Your task to perform on an android device: Open settings Image 0: 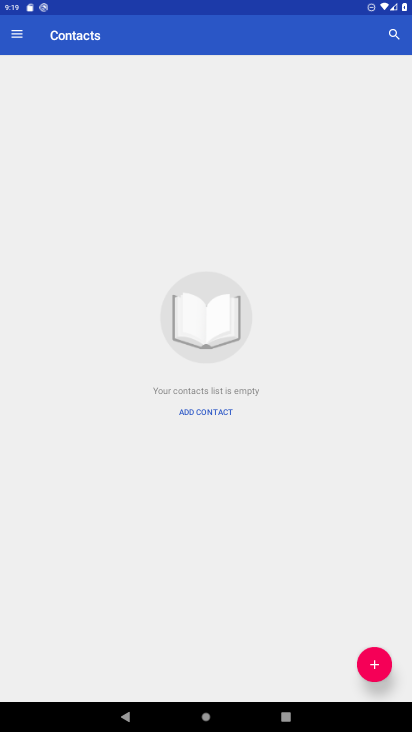
Step 0: press home button
Your task to perform on an android device: Open settings Image 1: 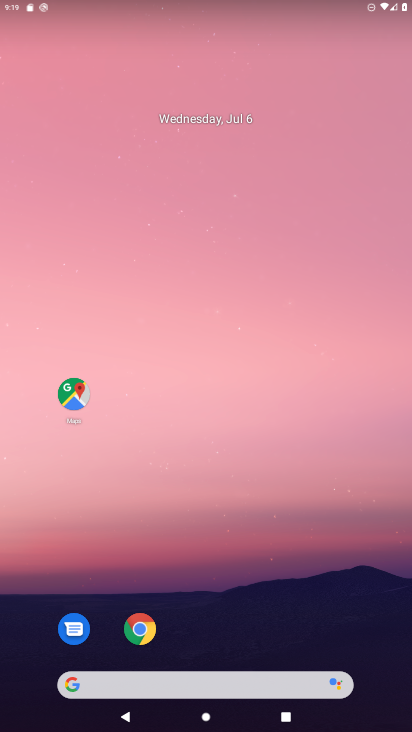
Step 1: drag from (252, 646) to (274, 12)
Your task to perform on an android device: Open settings Image 2: 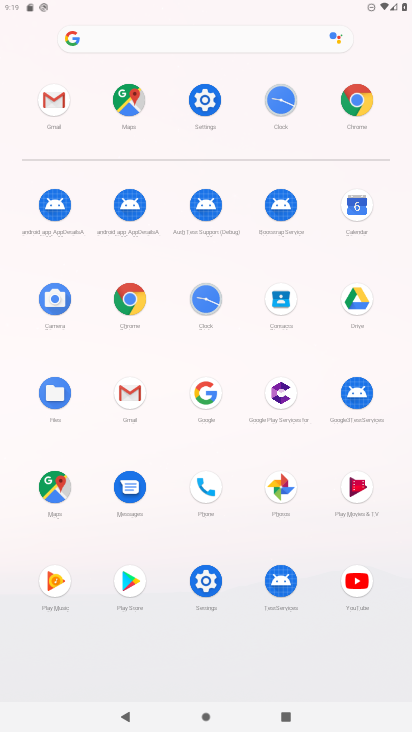
Step 2: click (201, 103)
Your task to perform on an android device: Open settings Image 3: 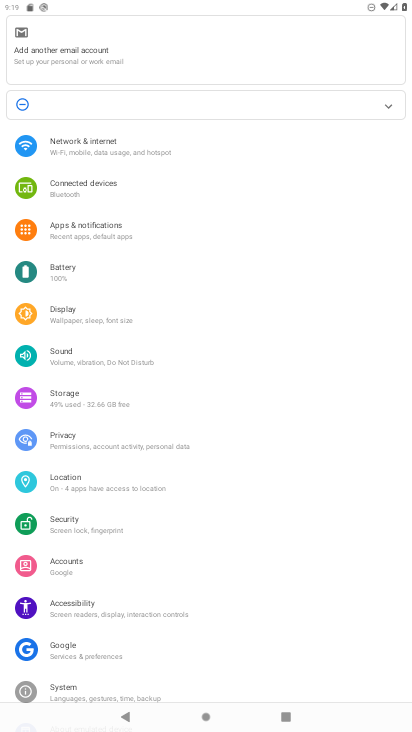
Step 3: task complete